Your task to perform on an android device: Go to Maps Image 0: 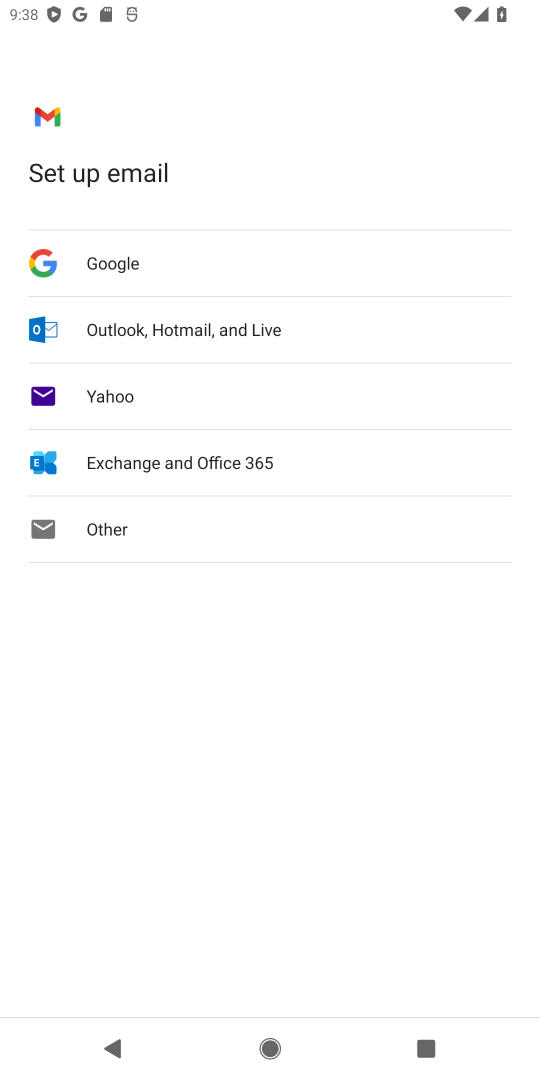
Step 0: press home button
Your task to perform on an android device: Go to Maps Image 1: 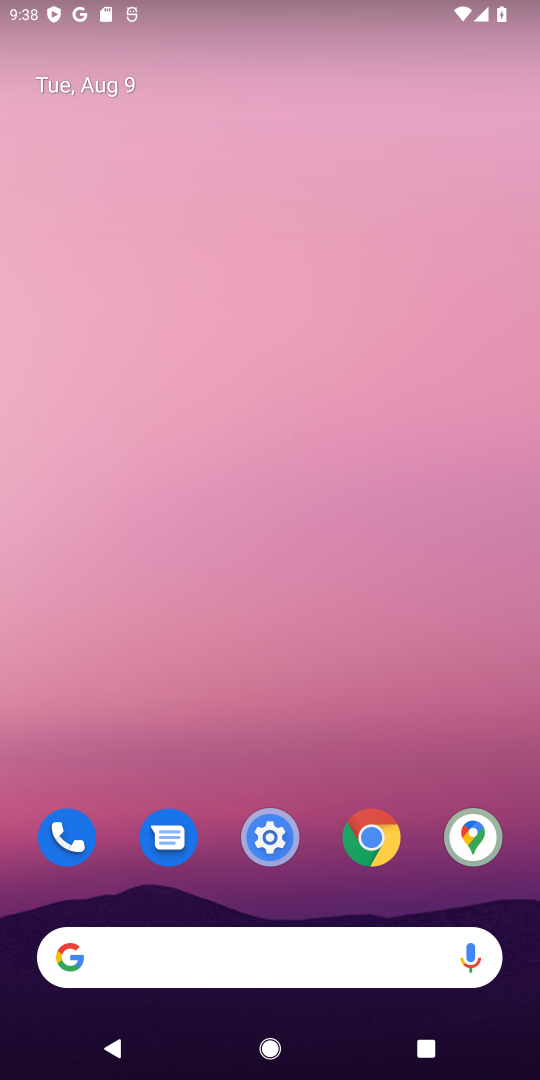
Step 1: drag from (307, 911) to (325, 104)
Your task to perform on an android device: Go to Maps Image 2: 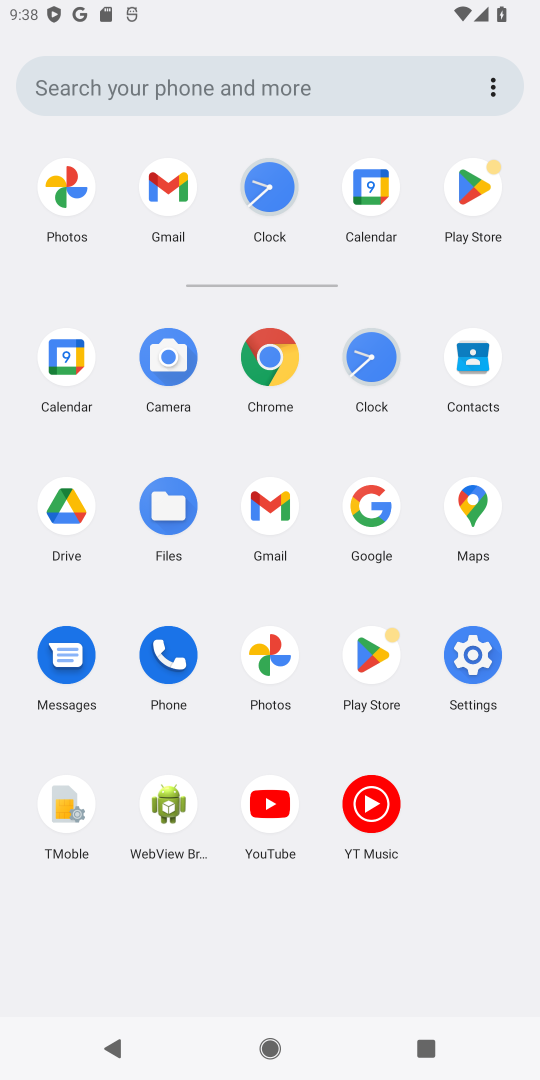
Step 2: click (466, 503)
Your task to perform on an android device: Go to Maps Image 3: 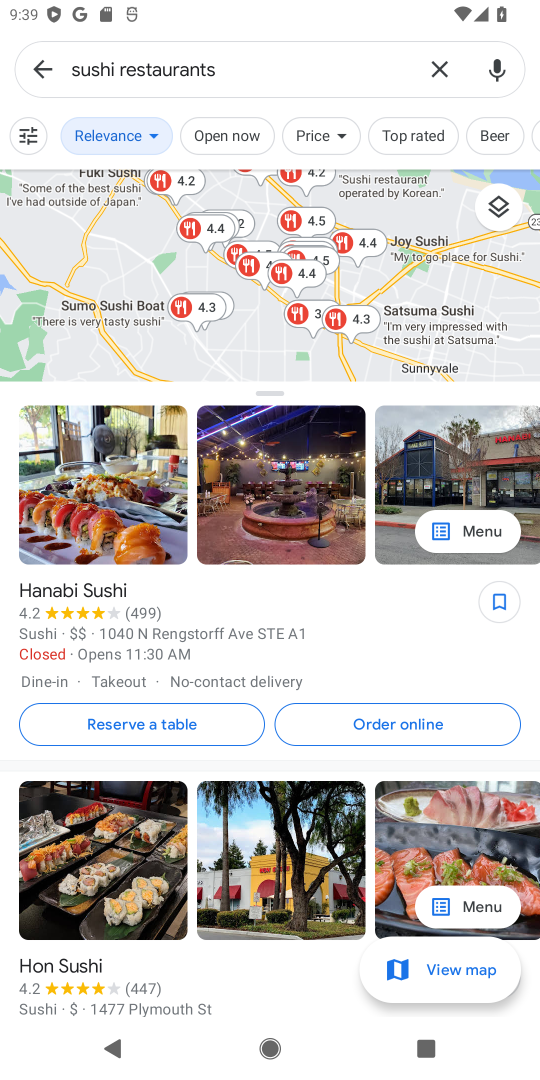
Step 3: task complete